Your task to perform on an android device: toggle notification dots Image 0: 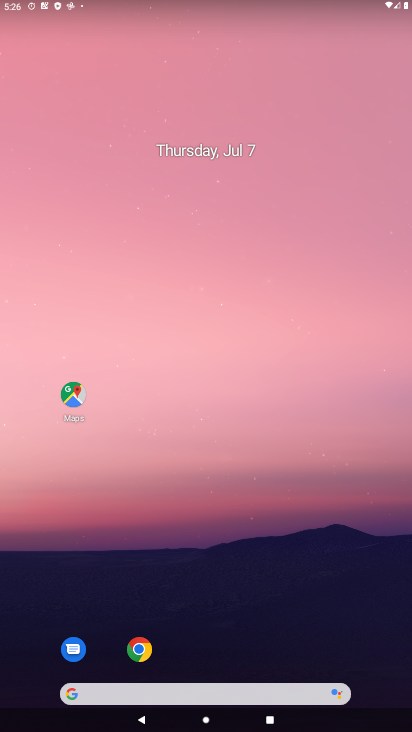
Step 0: drag from (388, 665) to (291, 82)
Your task to perform on an android device: toggle notification dots Image 1: 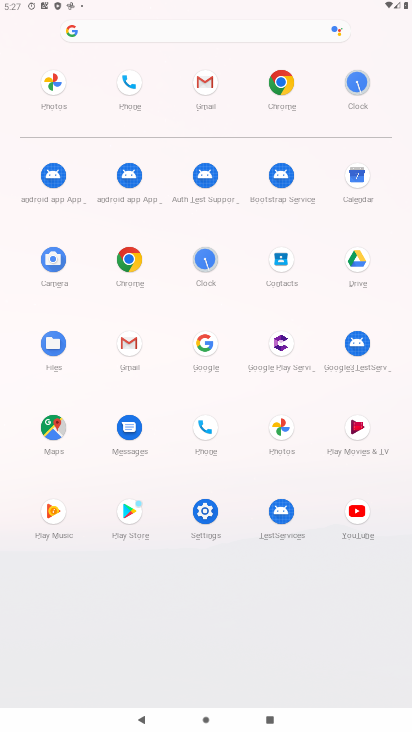
Step 1: click (208, 514)
Your task to perform on an android device: toggle notification dots Image 2: 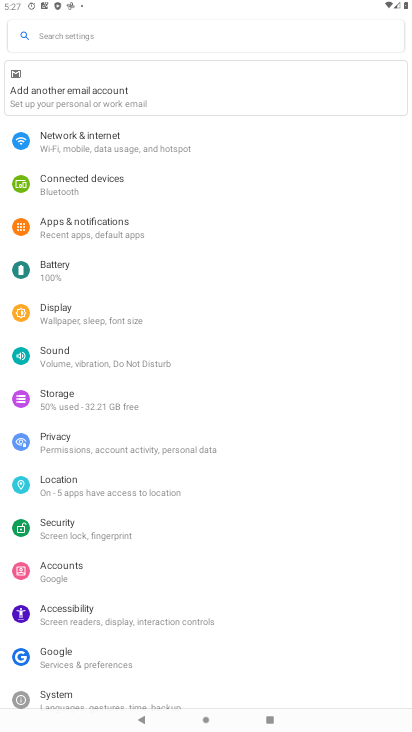
Step 2: click (80, 238)
Your task to perform on an android device: toggle notification dots Image 3: 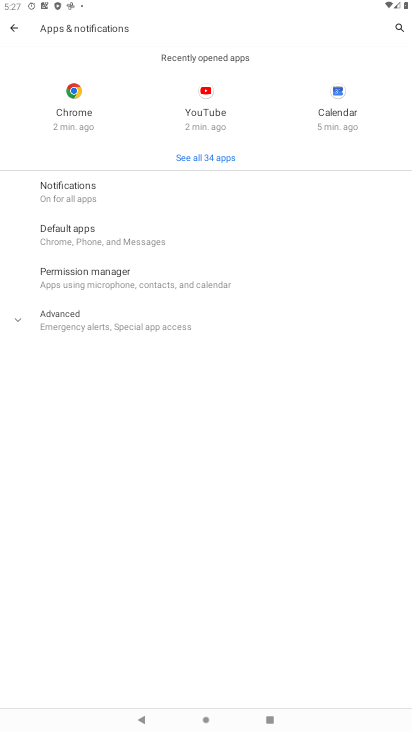
Step 3: click (168, 186)
Your task to perform on an android device: toggle notification dots Image 4: 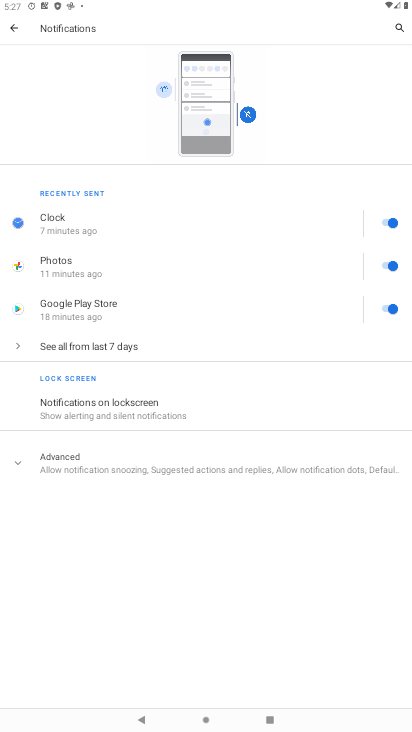
Step 4: click (104, 395)
Your task to perform on an android device: toggle notification dots Image 5: 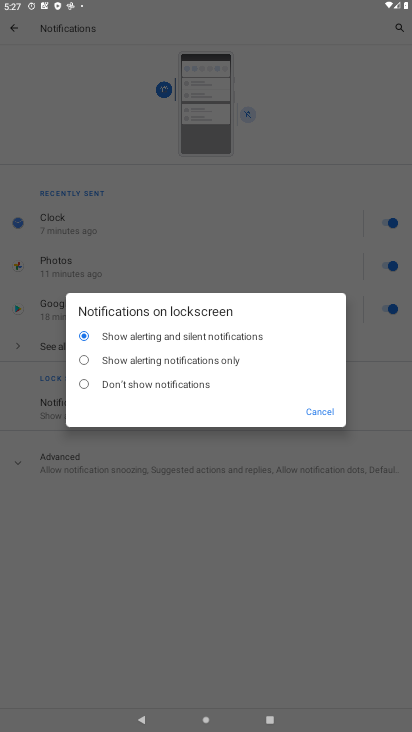
Step 5: click (324, 398)
Your task to perform on an android device: toggle notification dots Image 6: 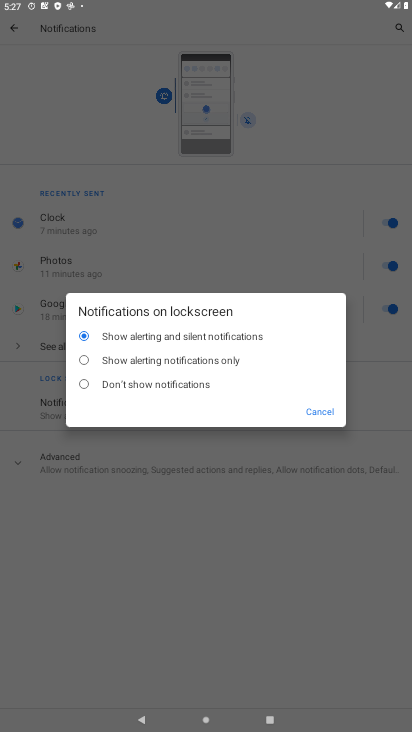
Step 6: click (311, 413)
Your task to perform on an android device: toggle notification dots Image 7: 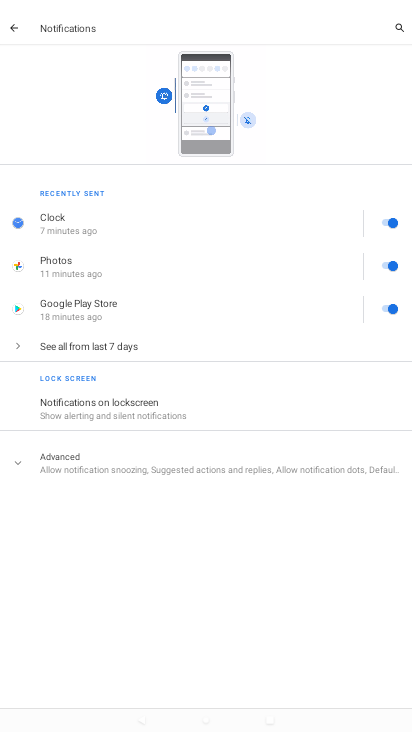
Step 7: click (84, 456)
Your task to perform on an android device: toggle notification dots Image 8: 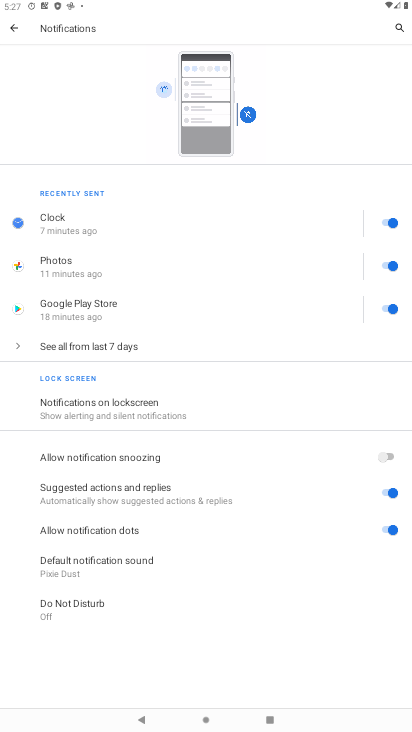
Step 8: click (372, 524)
Your task to perform on an android device: toggle notification dots Image 9: 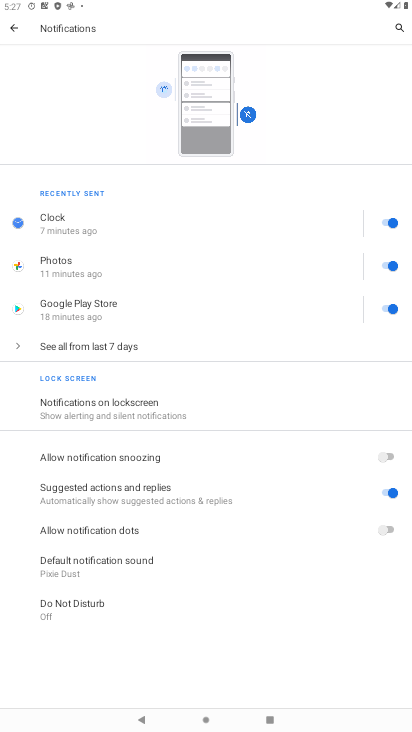
Step 9: task complete